Your task to perform on an android device: empty trash in the gmail app Image 0: 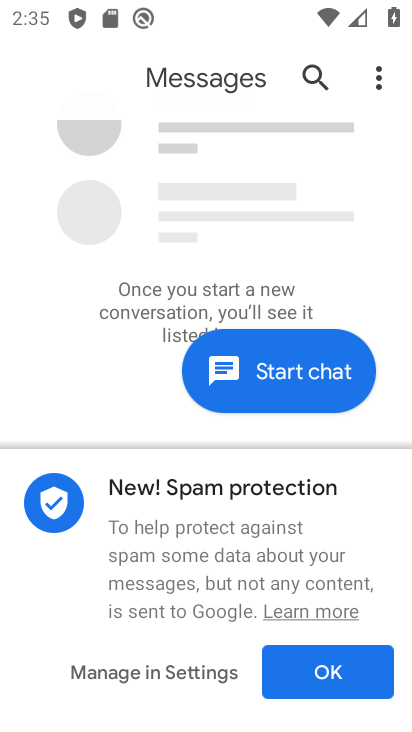
Step 0: press home button
Your task to perform on an android device: empty trash in the gmail app Image 1: 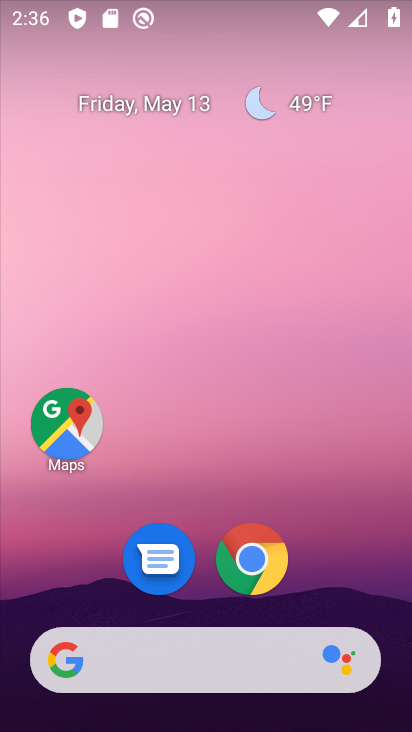
Step 1: drag from (394, 594) to (279, 175)
Your task to perform on an android device: empty trash in the gmail app Image 2: 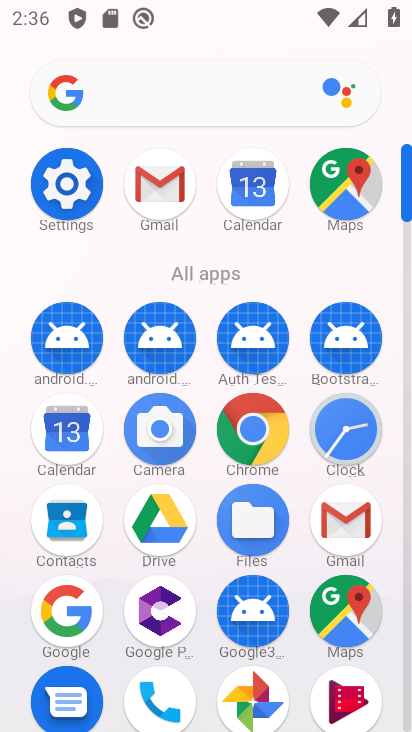
Step 2: click (338, 517)
Your task to perform on an android device: empty trash in the gmail app Image 3: 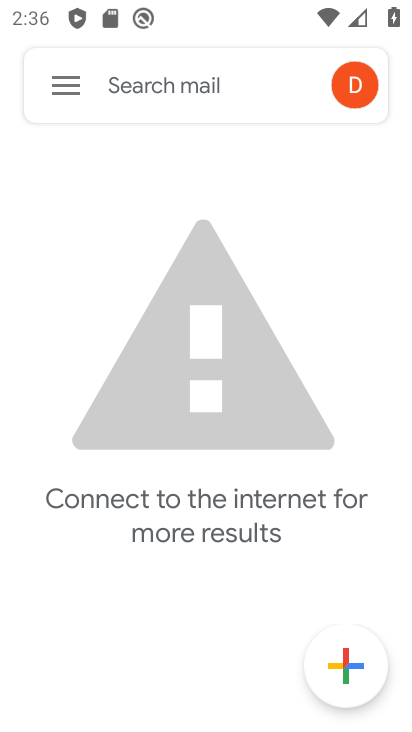
Step 3: click (66, 83)
Your task to perform on an android device: empty trash in the gmail app Image 4: 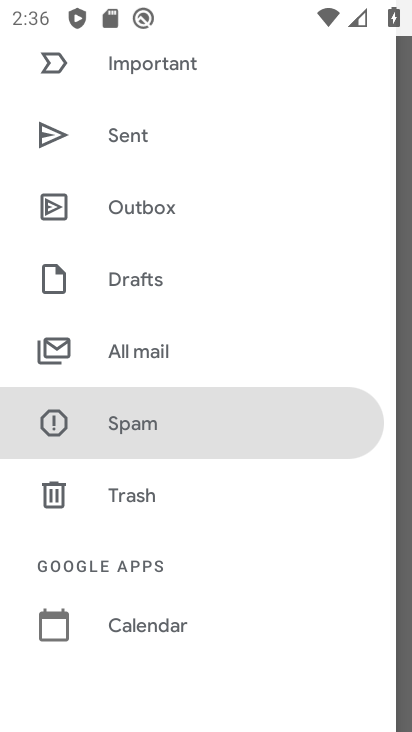
Step 4: click (124, 484)
Your task to perform on an android device: empty trash in the gmail app Image 5: 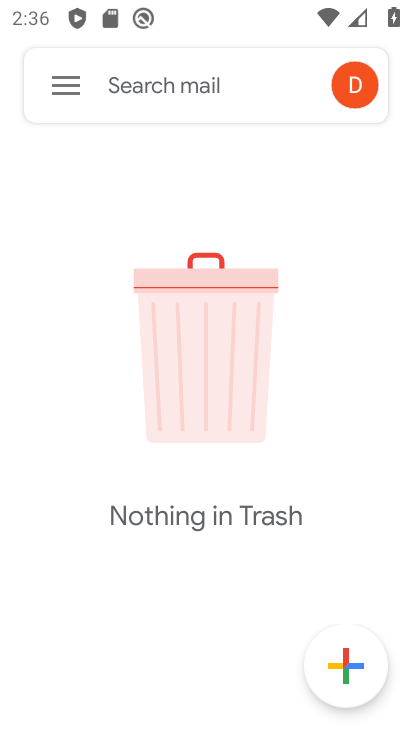
Step 5: task complete